Your task to perform on an android device: Go to internet settings Image 0: 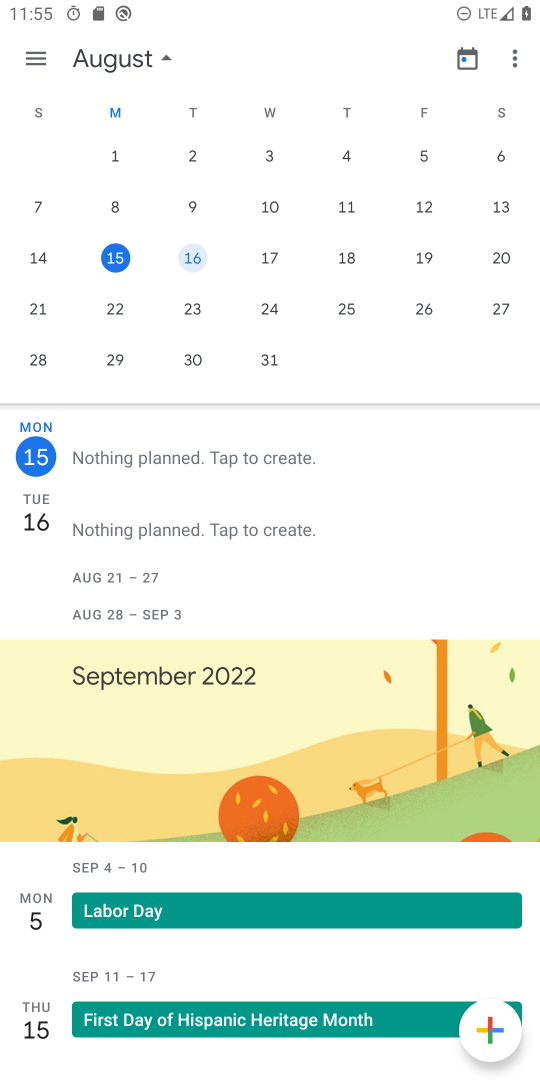
Step 0: drag from (233, 8) to (402, 717)
Your task to perform on an android device: Go to internet settings Image 1: 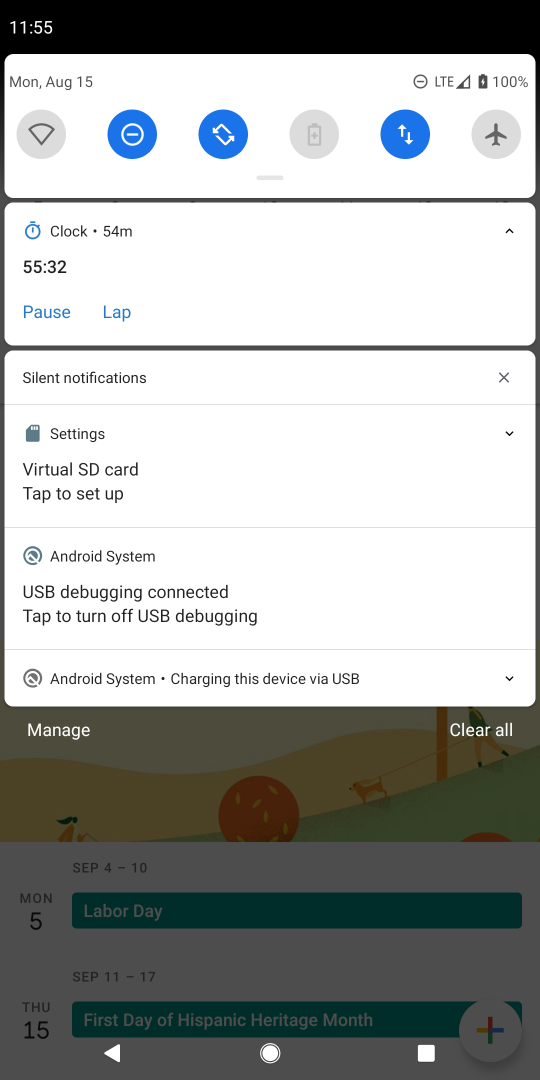
Step 1: click (396, 140)
Your task to perform on an android device: Go to internet settings Image 2: 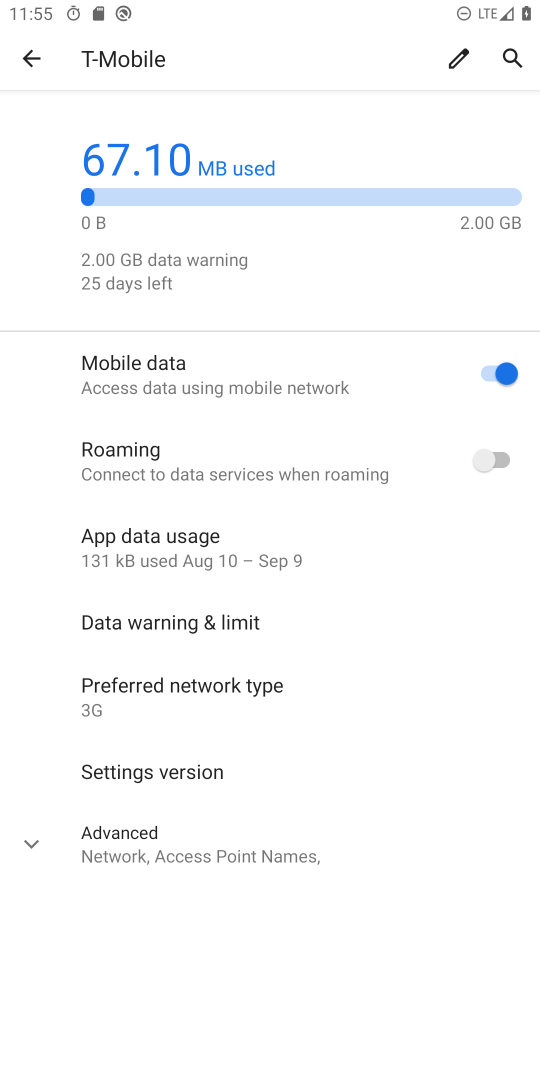
Step 2: task complete